Your task to perform on an android device: What's the weather going to be tomorrow? Image 0: 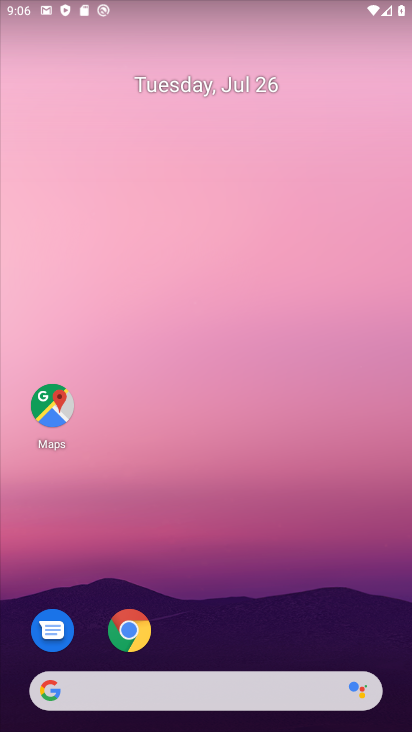
Step 0: press home button
Your task to perform on an android device: What's the weather going to be tomorrow? Image 1: 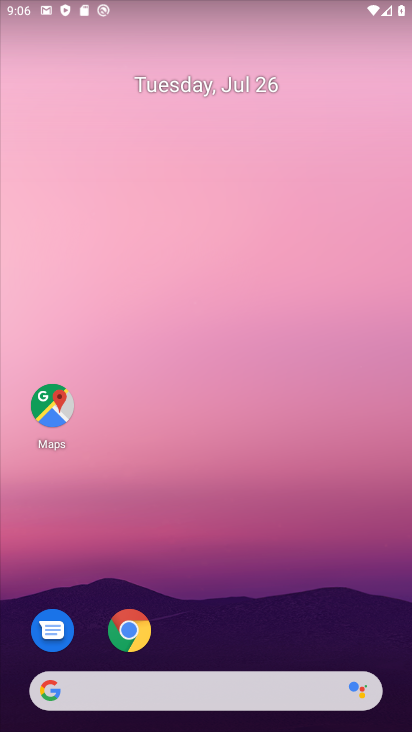
Step 1: drag from (77, 488) to (397, 466)
Your task to perform on an android device: What's the weather going to be tomorrow? Image 2: 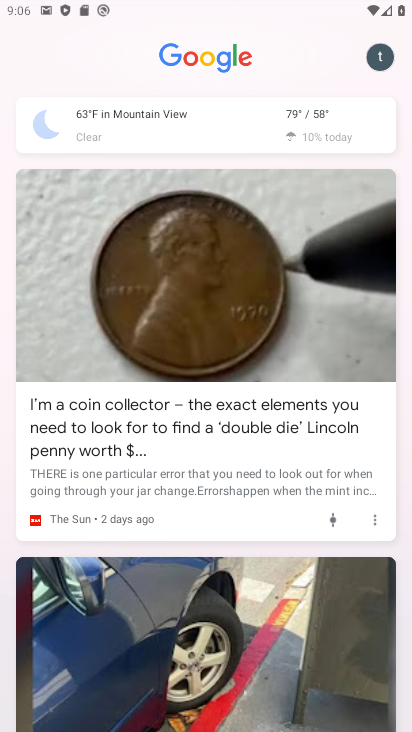
Step 2: click (265, 115)
Your task to perform on an android device: What's the weather going to be tomorrow? Image 3: 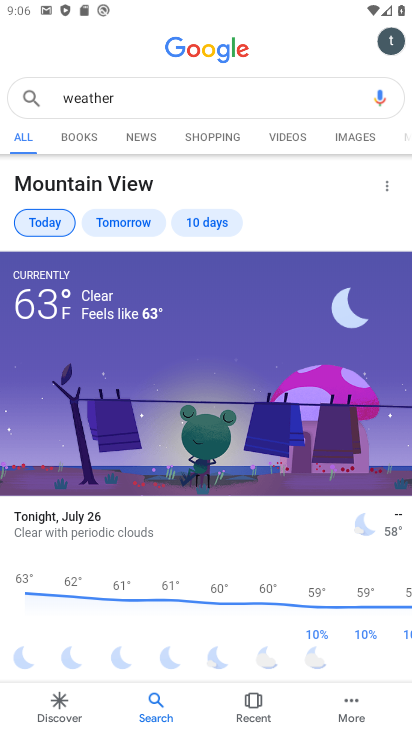
Step 3: click (124, 219)
Your task to perform on an android device: What's the weather going to be tomorrow? Image 4: 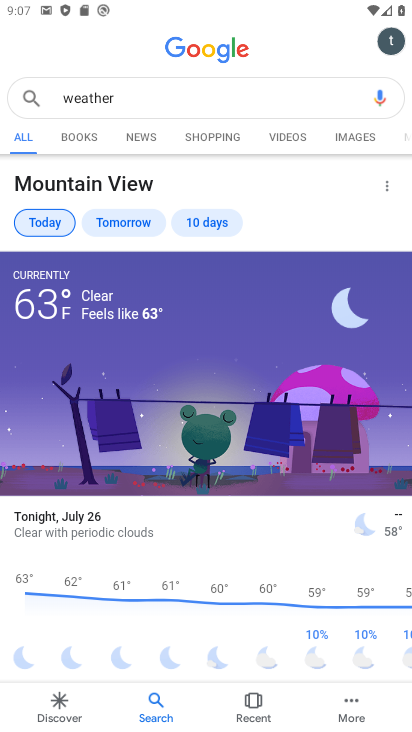
Step 4: click (124, 216)
Your task to perform on an android device: What's the weather going to be tomorrow? Image 5: 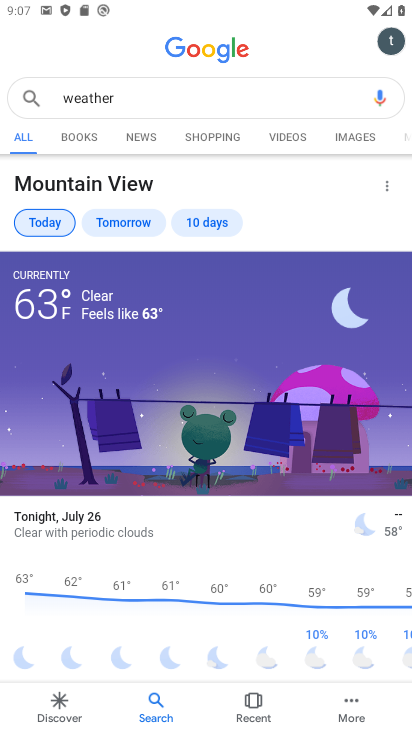
Step 5: click (112, 224)
Your task to perform on an android device: What's the weather going to be tomorrow? Image 6: 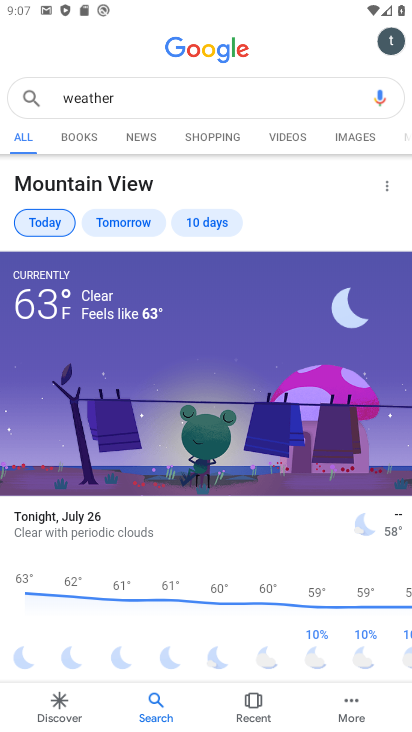
Step 6: click (112, 224)
Your task to perform on an android device: What's the weather going to be tomorrow? Image 7: 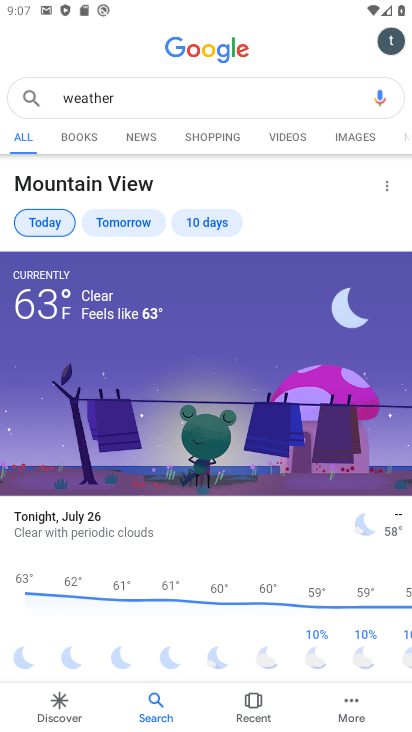
Step 7: click (112, 224)
Your task to perform on an android device: What's the weather going to be tomorrow? Image 8: 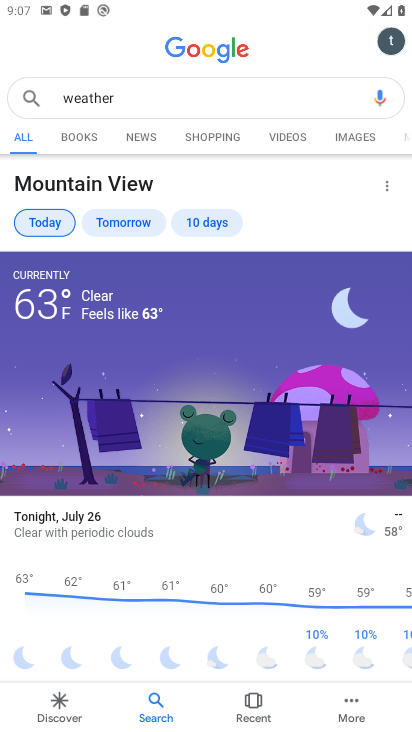
Step 8: drag from (188, 523) to (237, 309)
Your task to perform on an android device: What's the weather going to be tomorrow? Image 9: 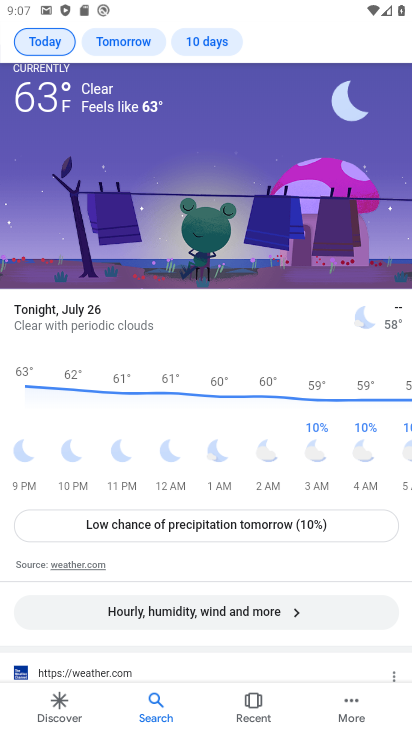
Step 9: click (121, 38)
Your task to perform on an android device: What's the weather going to be tomorrow? Image 10: 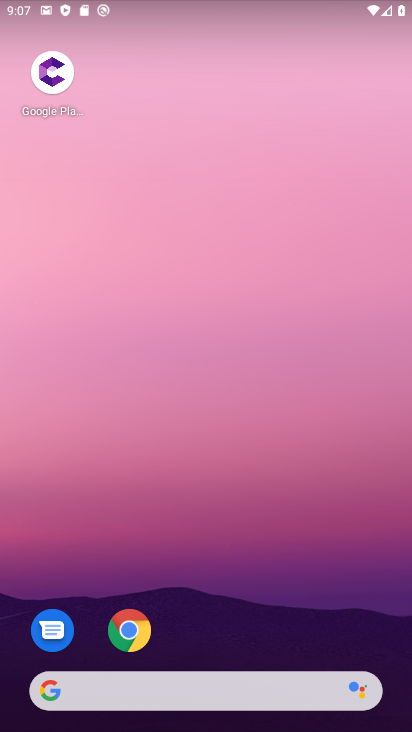
Step 10: task complete